Your task to perform on an android device: Open display settings Image 0: 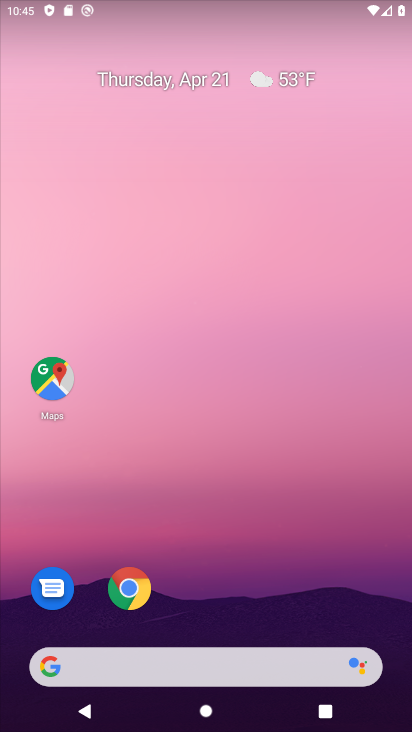
Step 0: drag from (262, 620) to (171, 13)
Your task to perform on an android device: Open display settings Image 1: 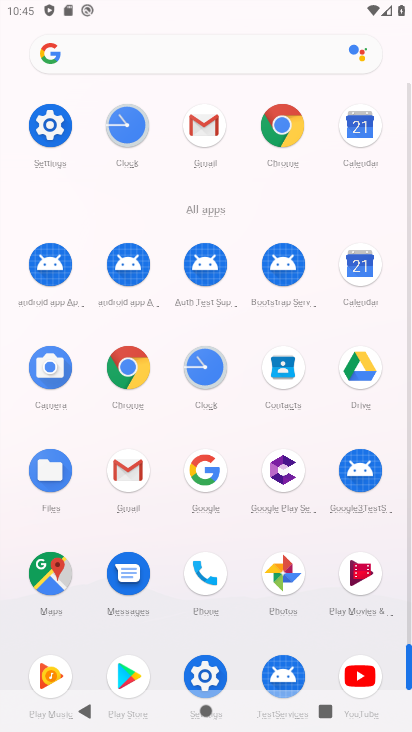
Step 1: click (50, 137)
Your task to perform on an android device: Open display settings Image 2: 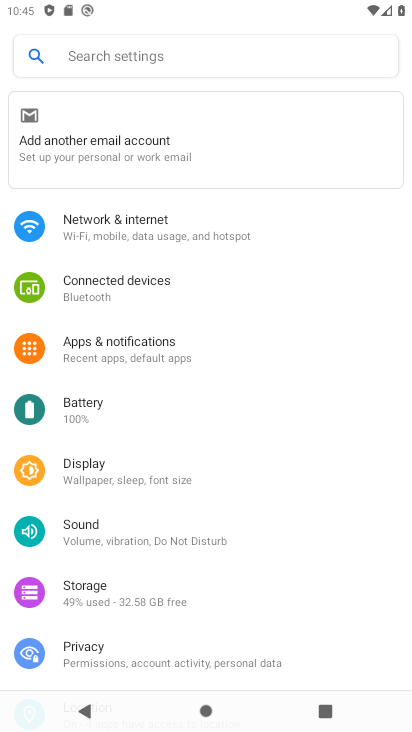
Step 2: click (89, 482)
Your task to perform on an android device: Open display settings Image 3: 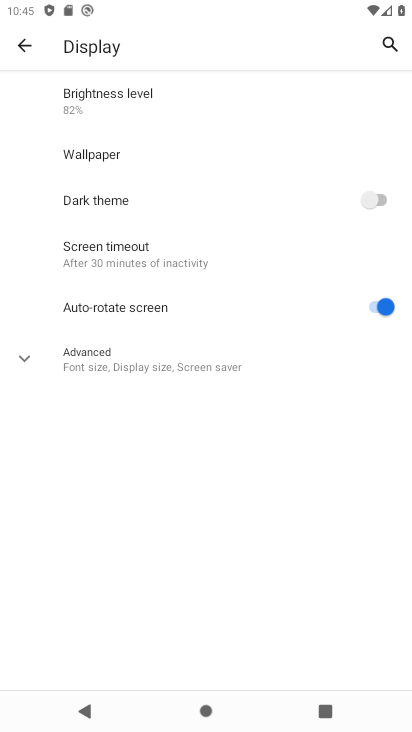
Step 3: task complete